Your task to perform on an android device: Look up the best gaming headphones on Best Buy Image 0: 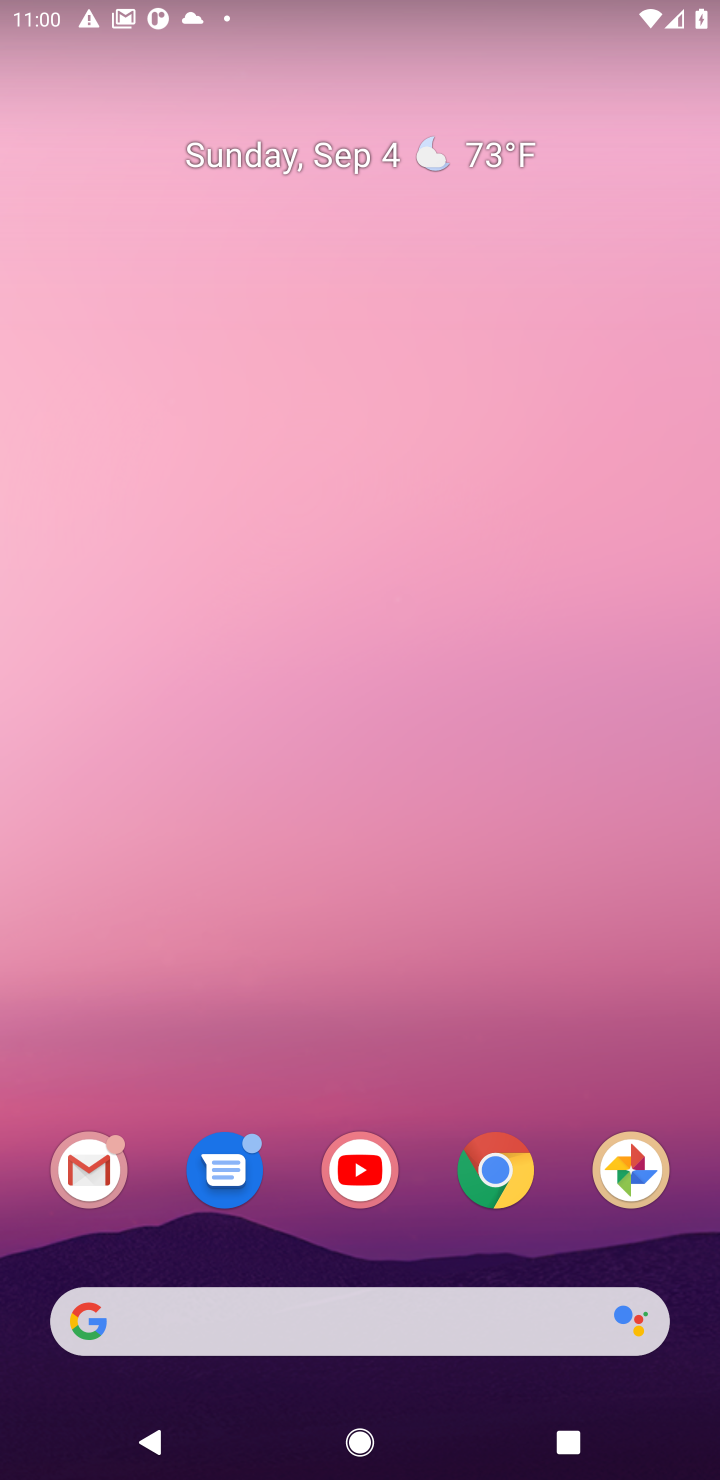
Step 0: drag from (402, 248) to (402, 117)
Your task to perform on an android device: Look up the best gaming headphones on Best Buy Image 1: 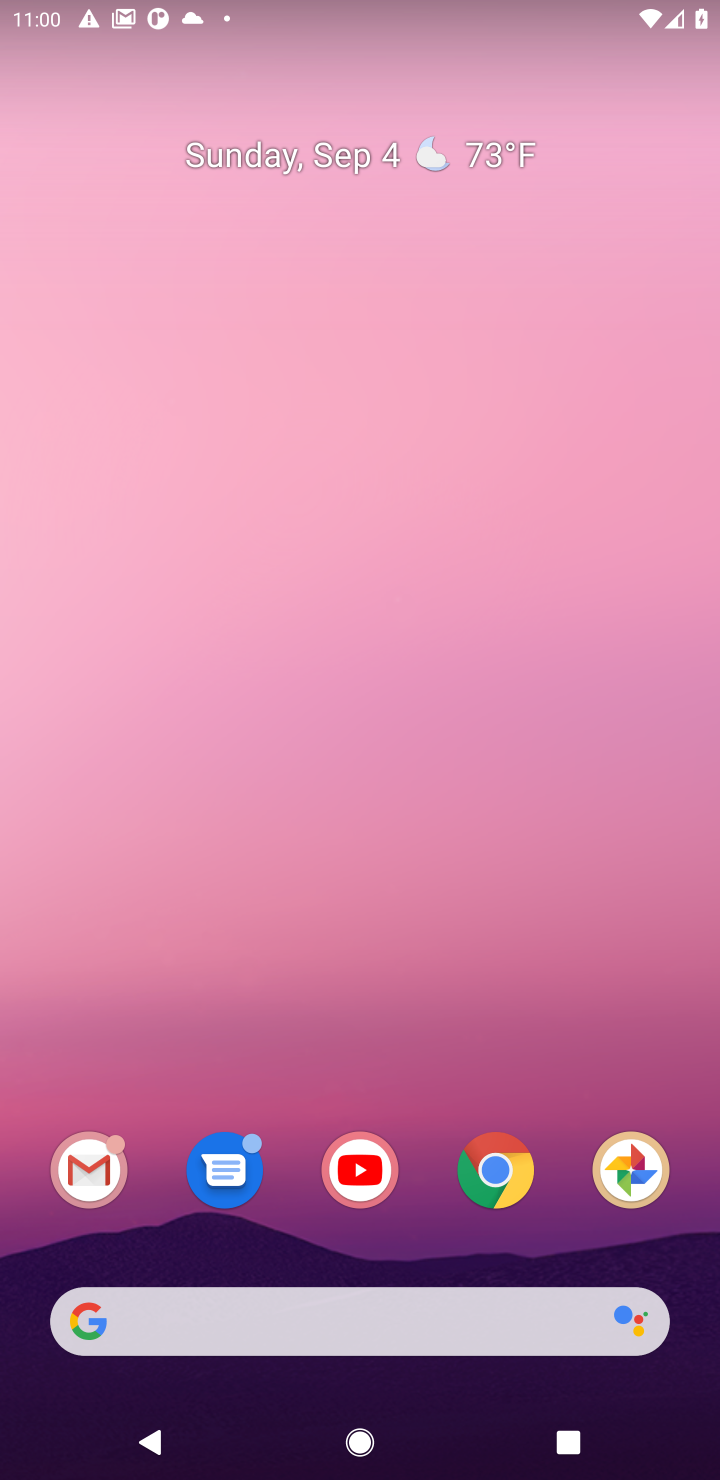
Step 1: drag from (339, 1224) to (424, 50)
Your task to perform on an android device: Look up the best gaming headphones on Best Buy Image 2: 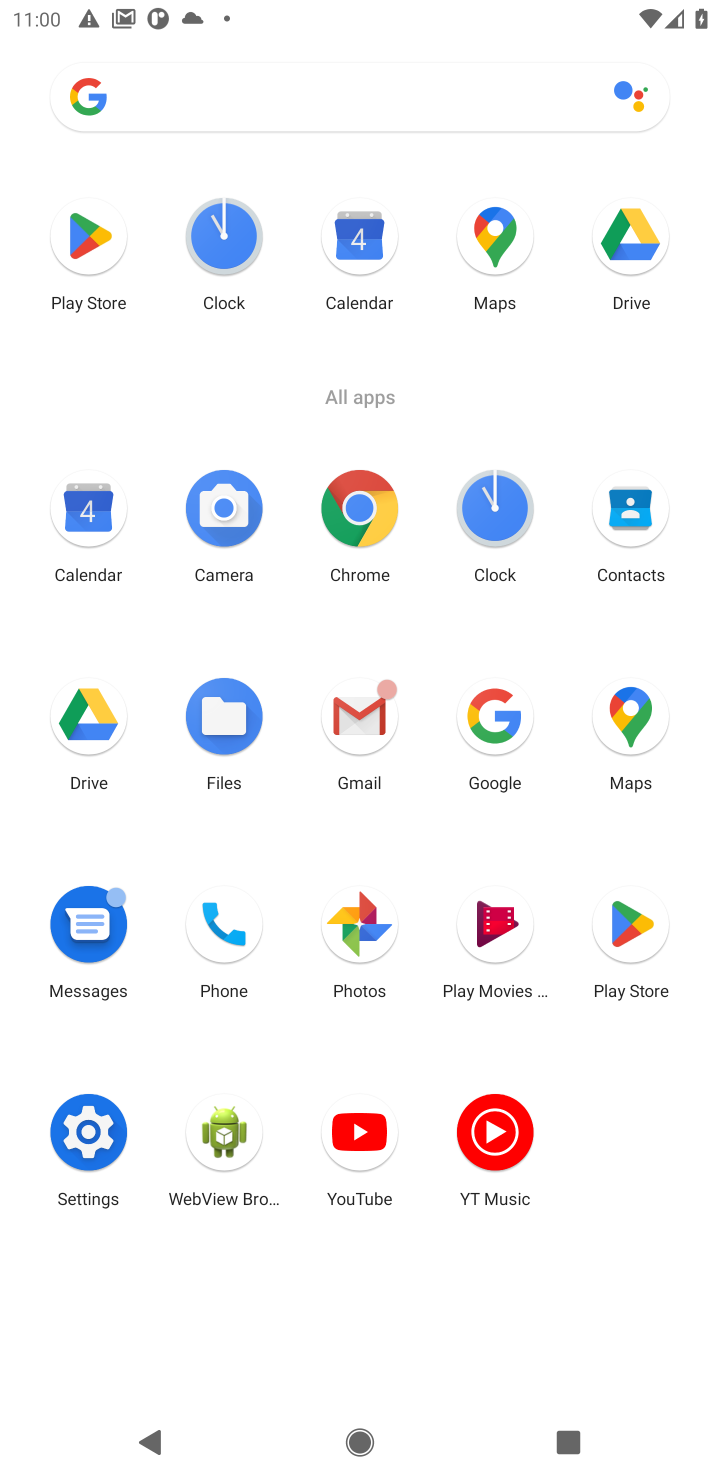
Step 2: click (344, 535)
Your task to perform on an android device: Look up the best gaming headphones on Best Buy Image 3: 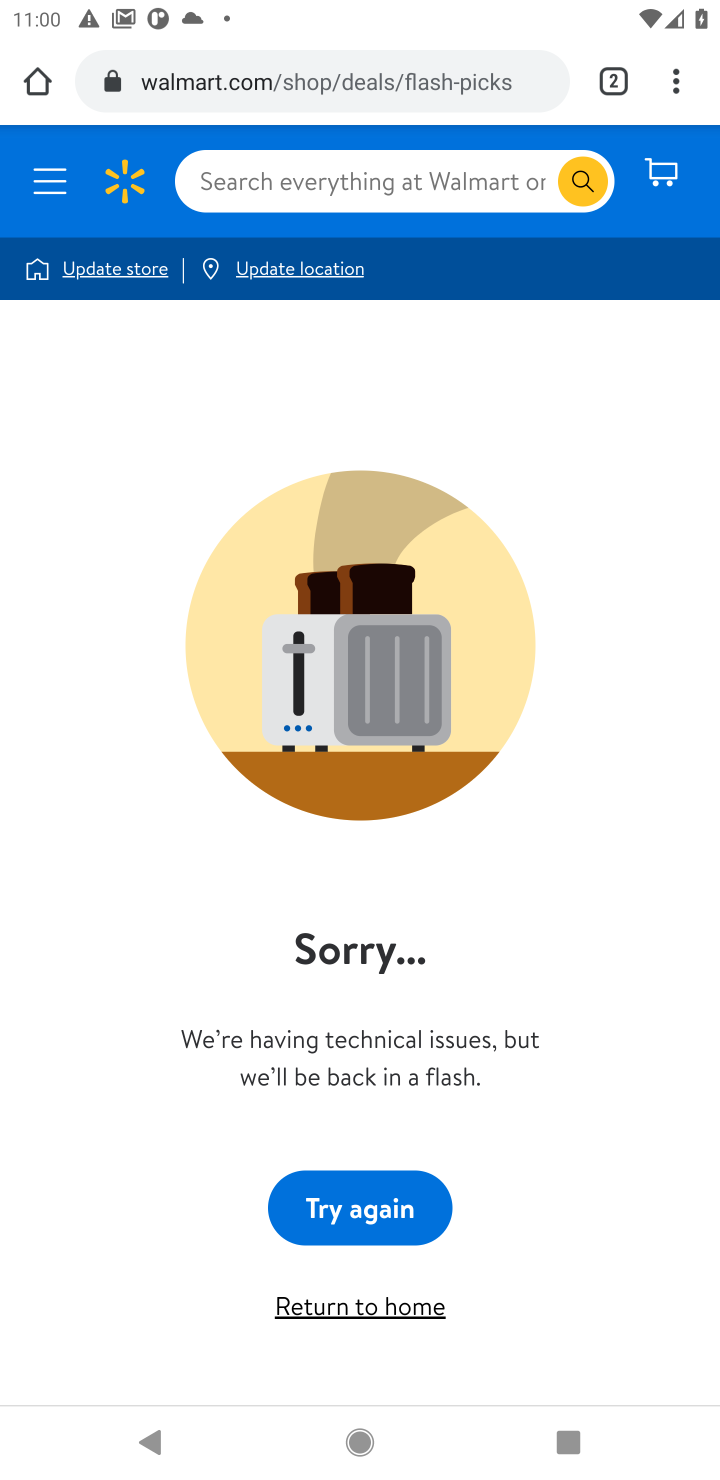
Step 3: click (611, 68)
Your task to perform on an android device: Look up the best gaming headphones on Best Buy Image 4: 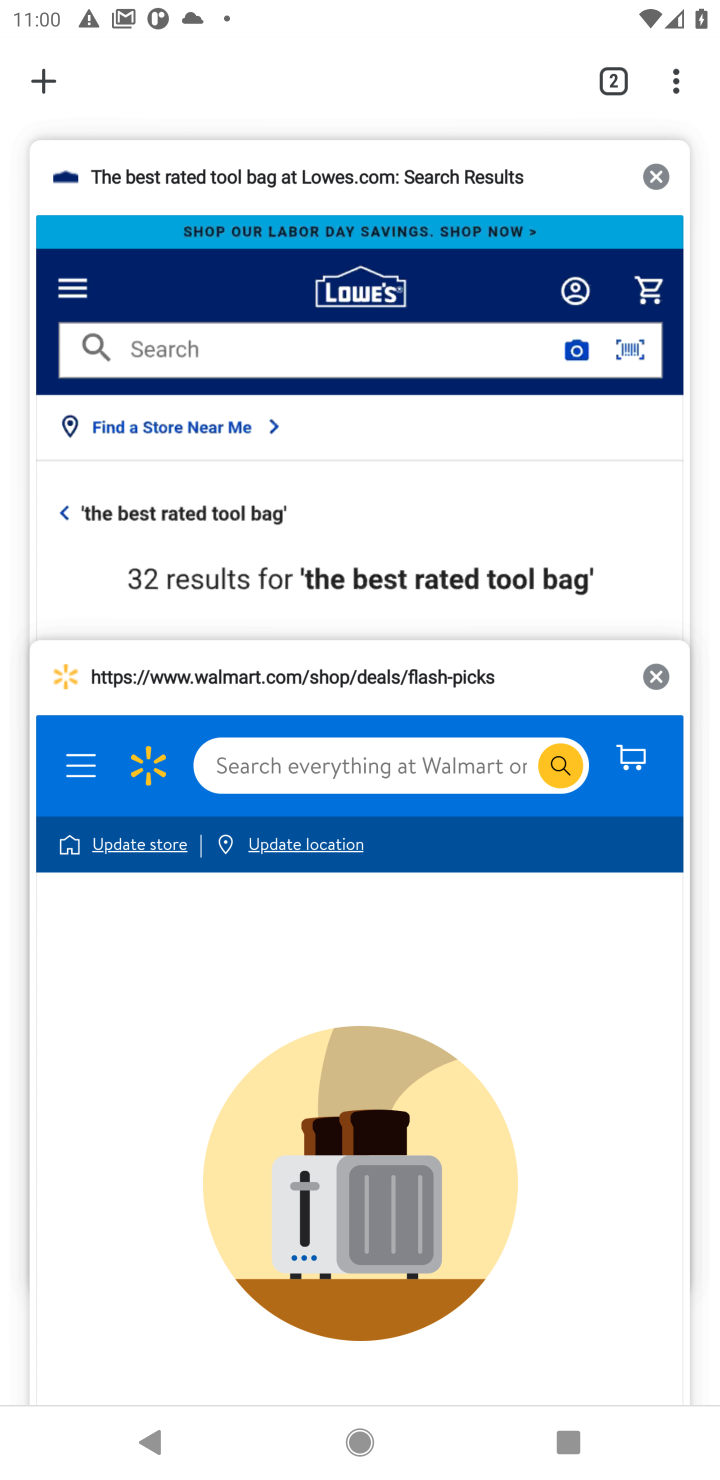
Step 4: click (38, 85)
Your task to perform on an android device: Look up the best gaming headphones on Best Buy Image 5: 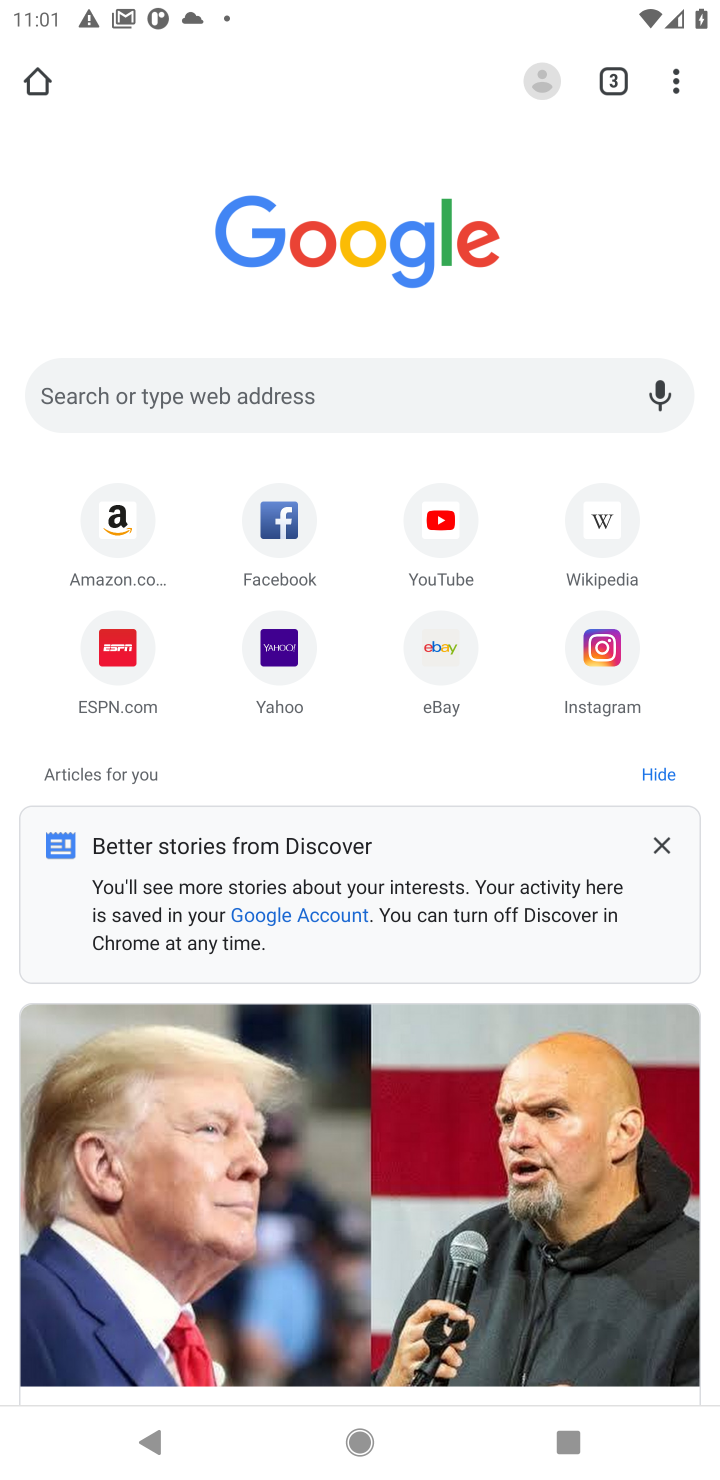
Step 5: click (258, 405)
Your task to perform on an android device: Look up the best gaming headphones on Best Buy Image 6: 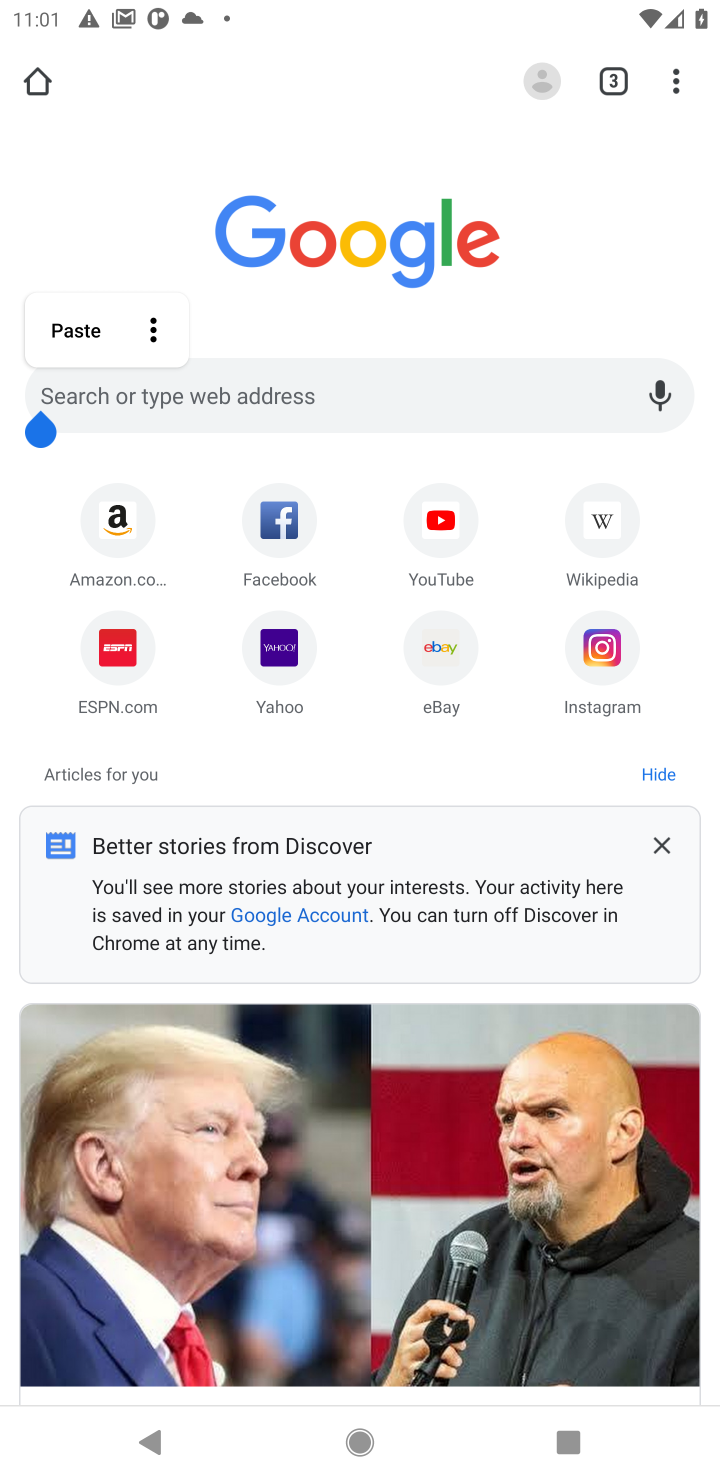
Step 6: type "Best Buy"
Your task to perform on an android device: Look up the best gaming headphones on Best Buy Image 7: 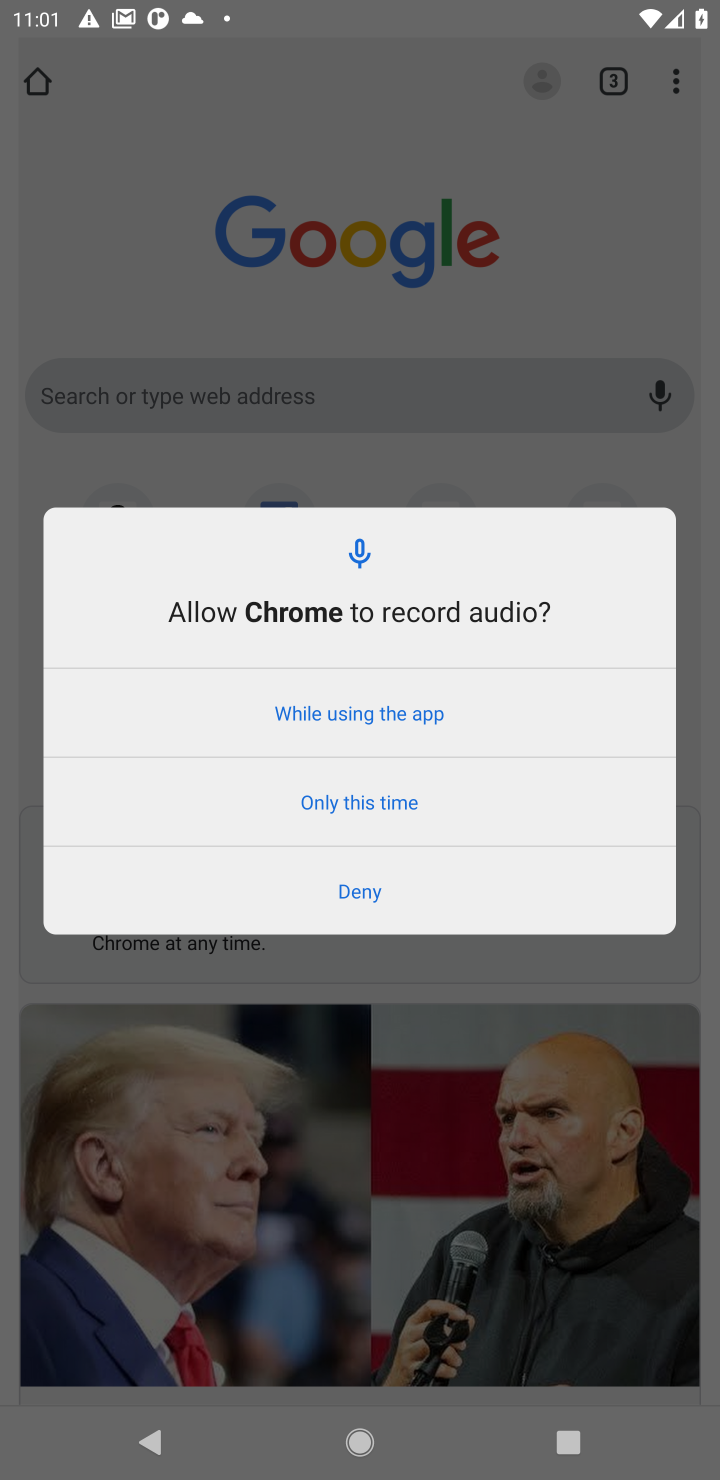
Step 7: click (157, 400)
Your task to perform on an android device: Look up the best gaming headphones on Best Buy Image 8: 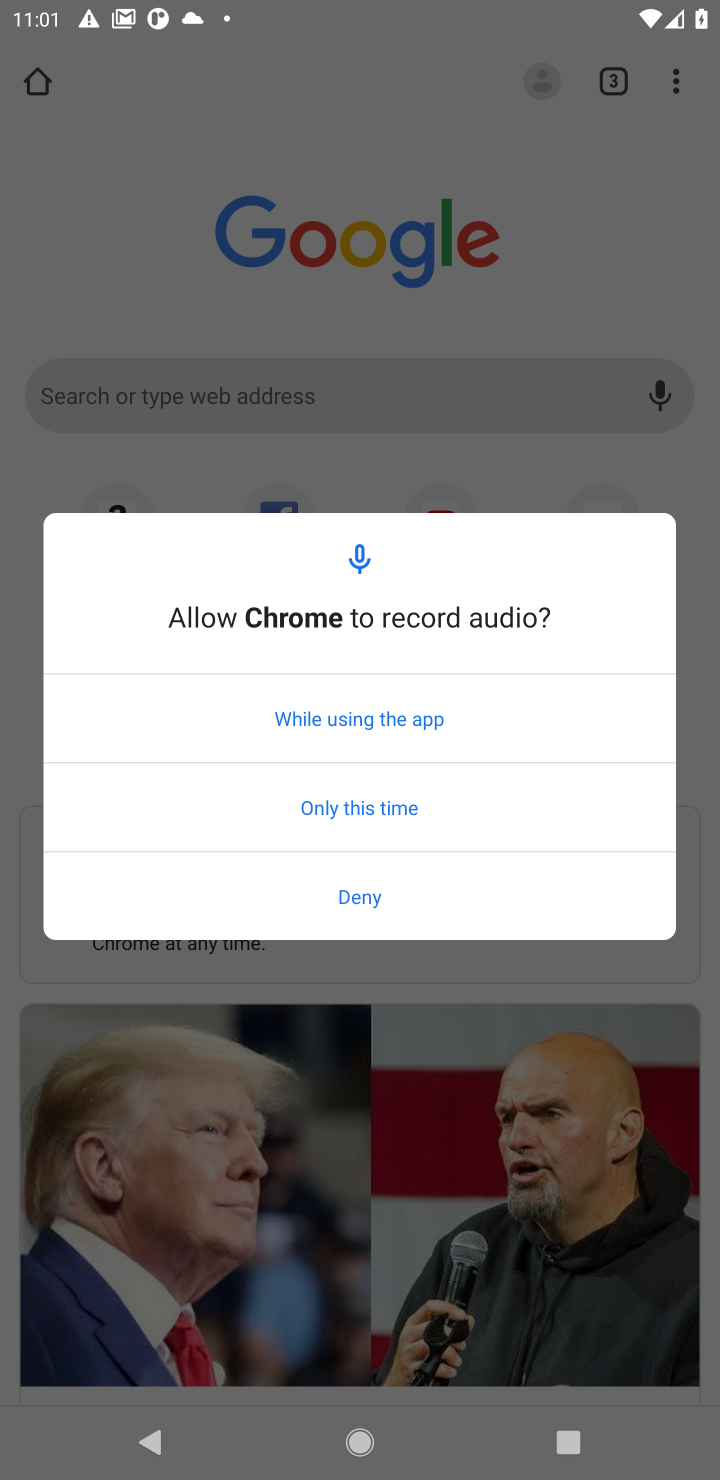
Step 8: click (546, 291)
Your task to perform on an android device: Look up the best gaming headphones on Best Buy Image 9: 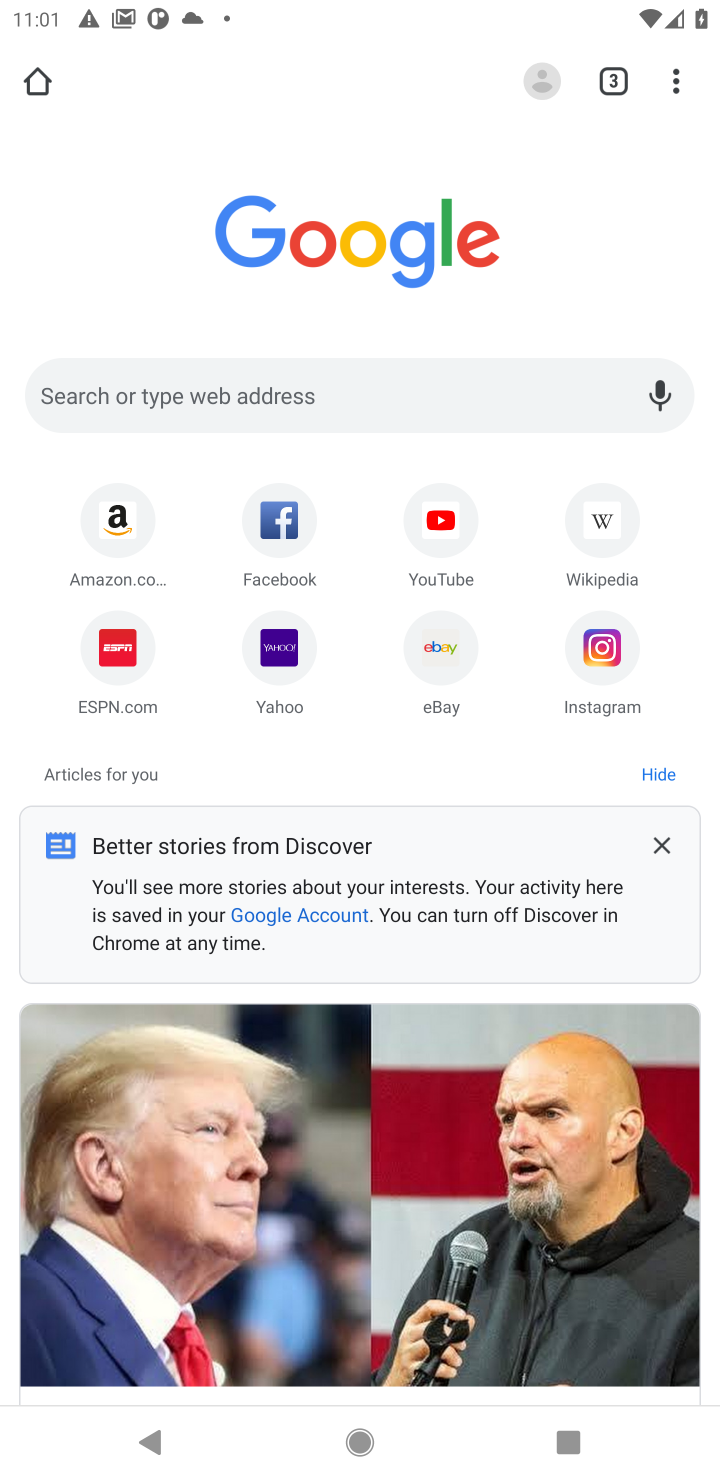
Step 9: click (376, 392)
Your task to perform on an android device: Look up the best gaming headphones on Best Buy Image 10: 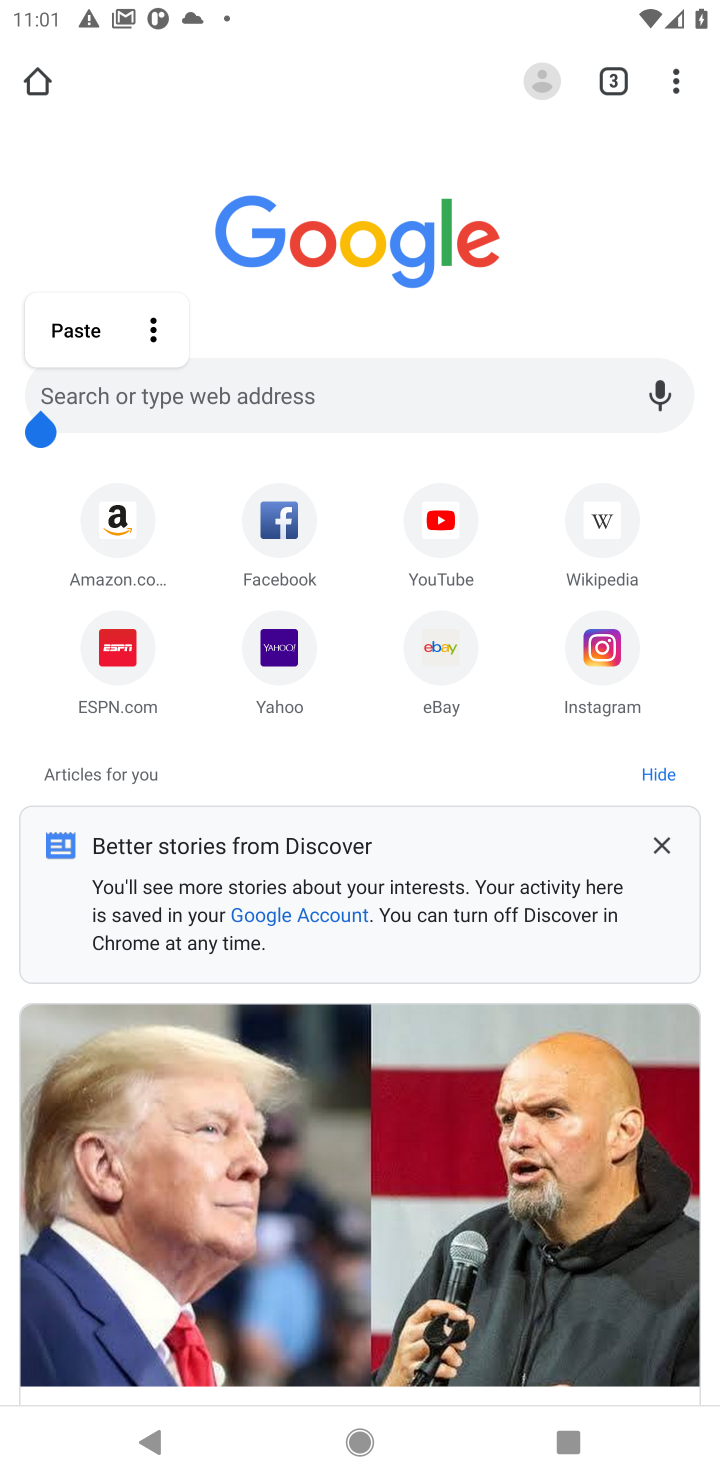
Step 10: click (294, 394)
Your task to perform on an android device: Look up the best gaming headphones on Best Buy Image 11: 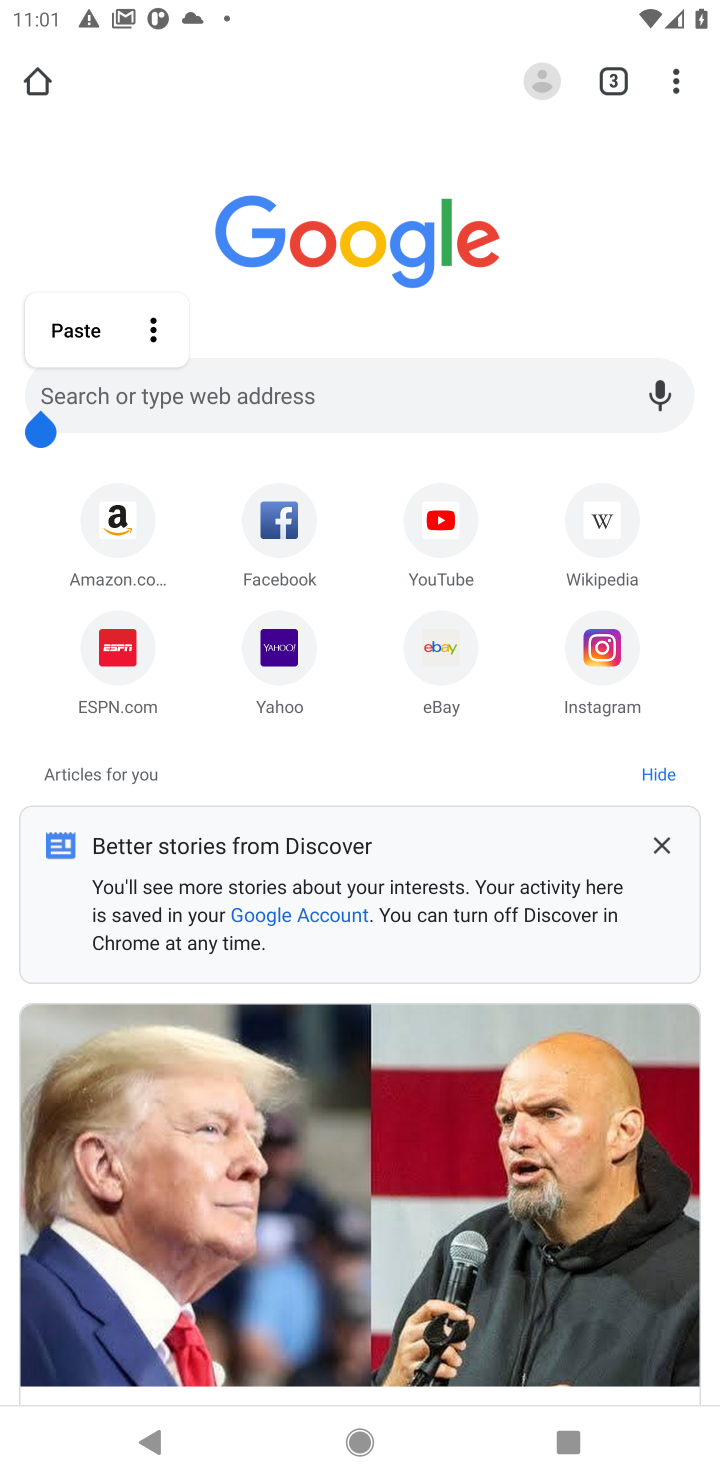
Step 11: click (301, 389)
Your task to perform on an android device: Look up the best gaming headphones on Best Buy Image 12: 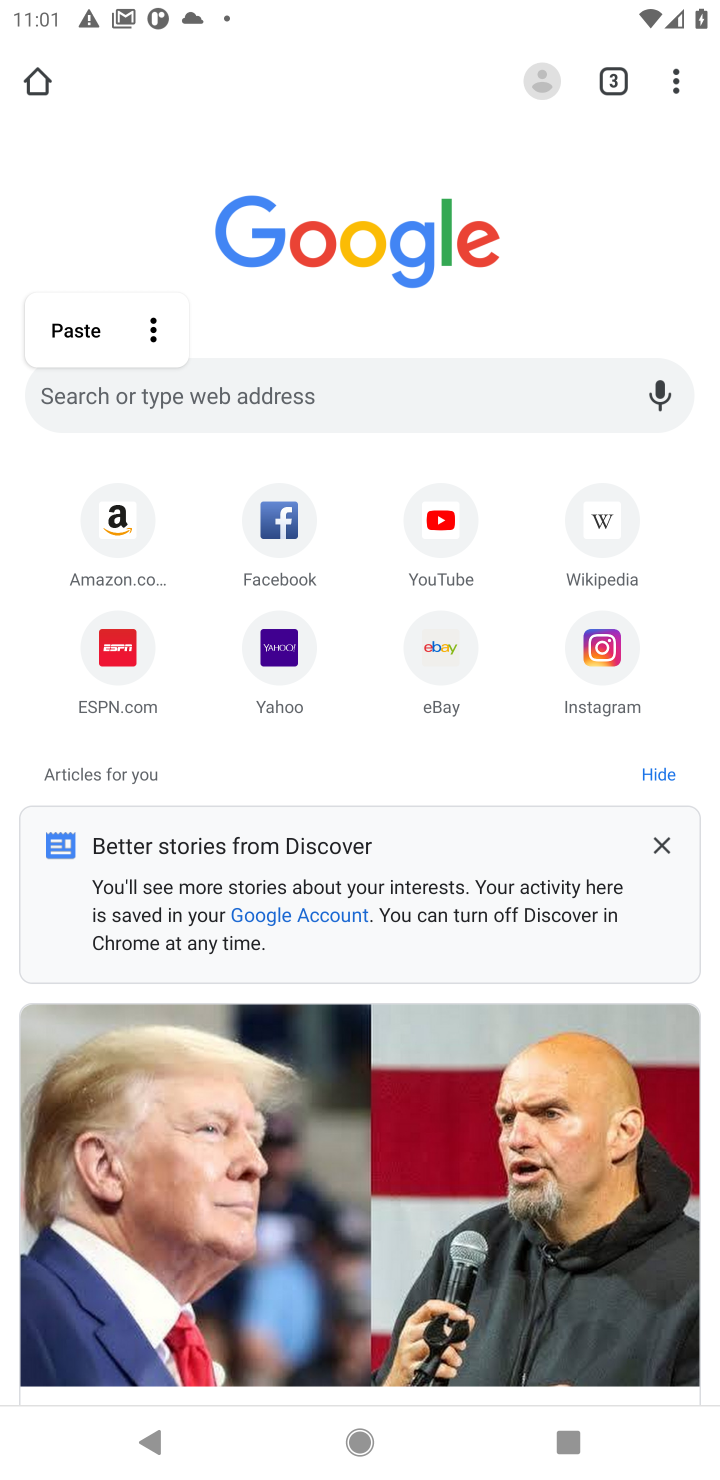
Step 12: click (371, 393)
Your task to perform on an android device: Look up the best gaming headphones on Best Buy Image 13: 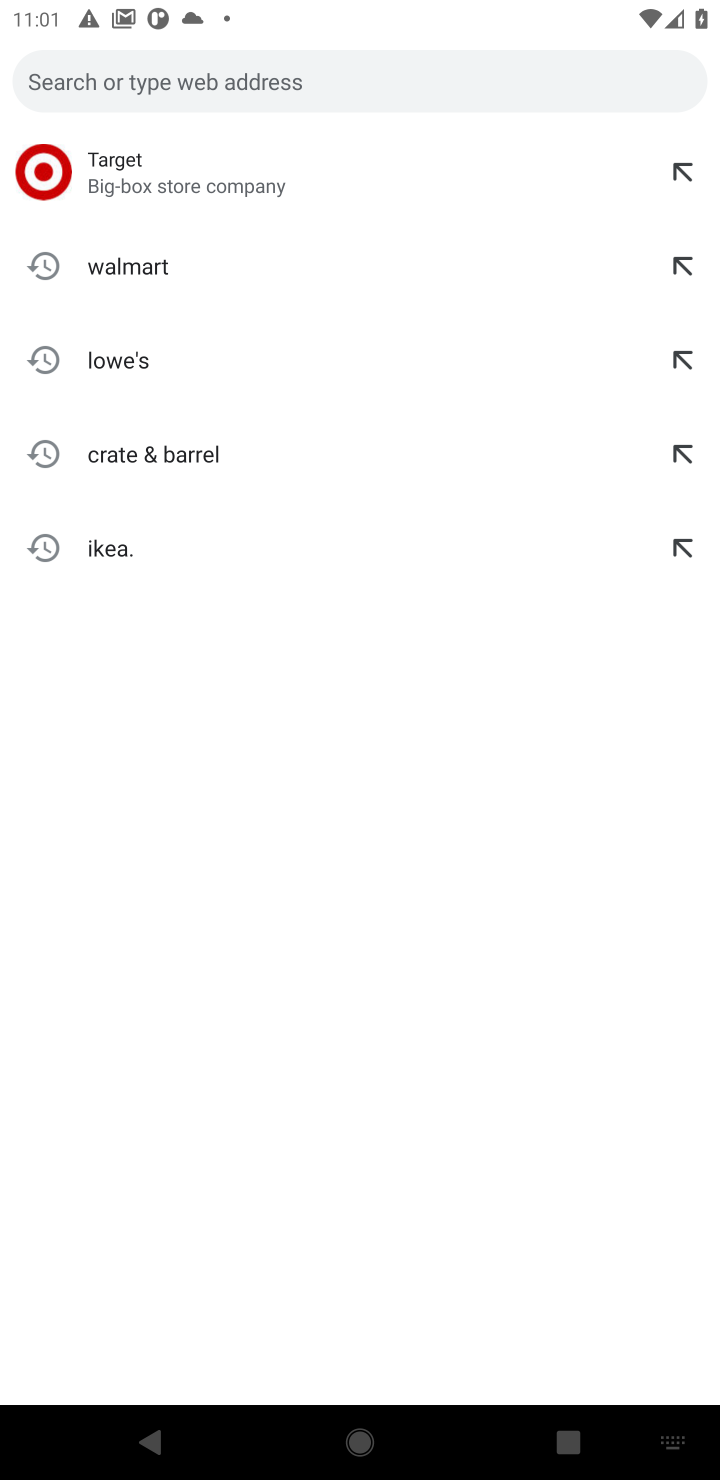
Step 13: type "Best Buy"
Your task to perform on an android device: Look up the best gaming headphones on Best Buy Image 14: 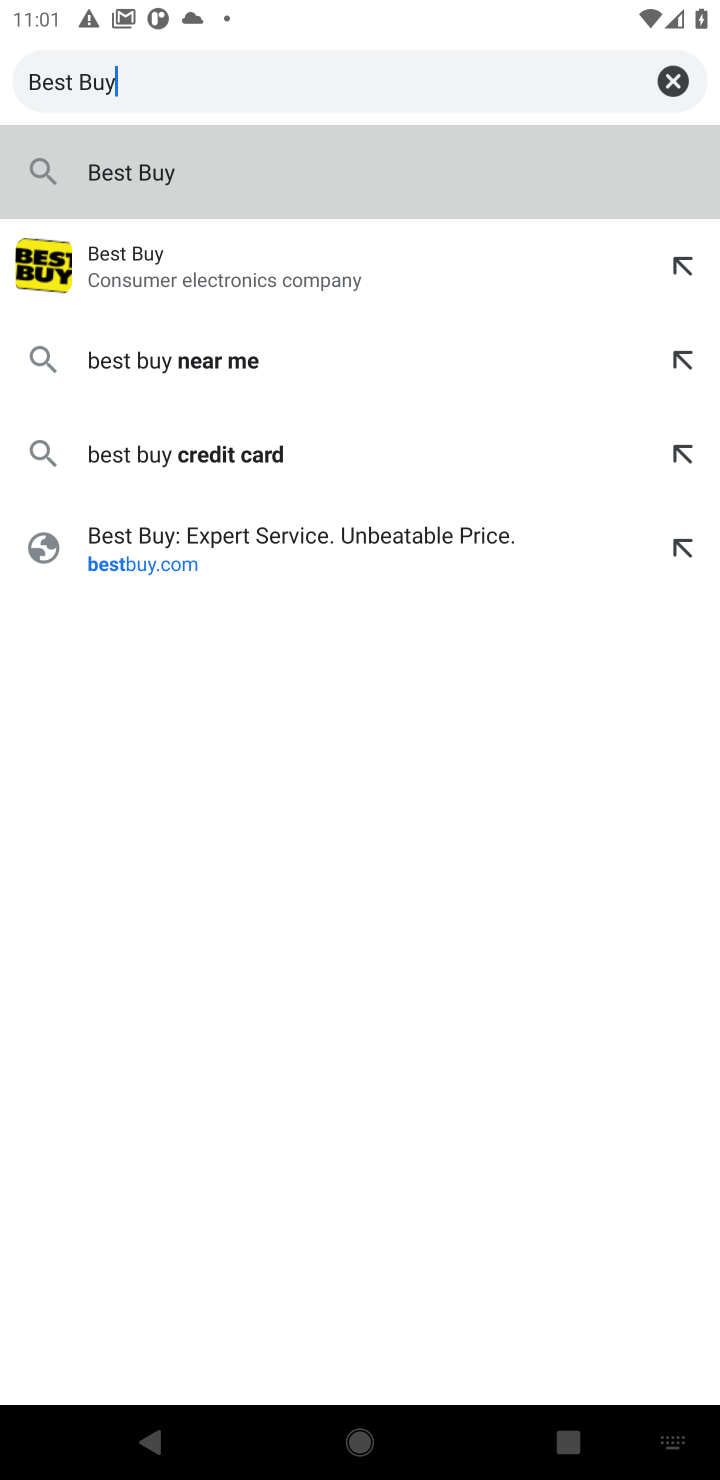
Step 14: click (231, 171)
Your task to perform on an android device: Look up the best gaming headphones on Best Buy Image 15: 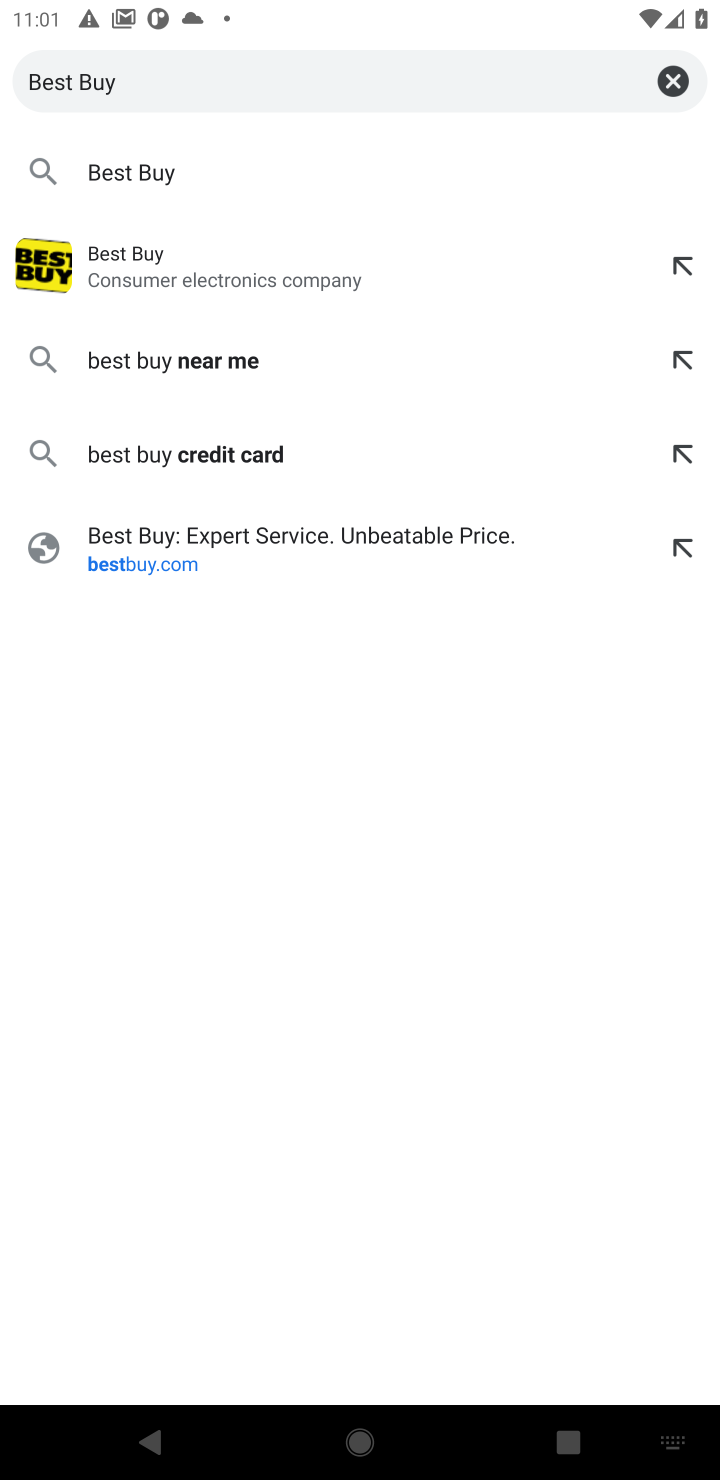
Step 15: click (195, 193)
Your task to perform on an android device: Look up the best gaming headphones on Best Buy Image 16: 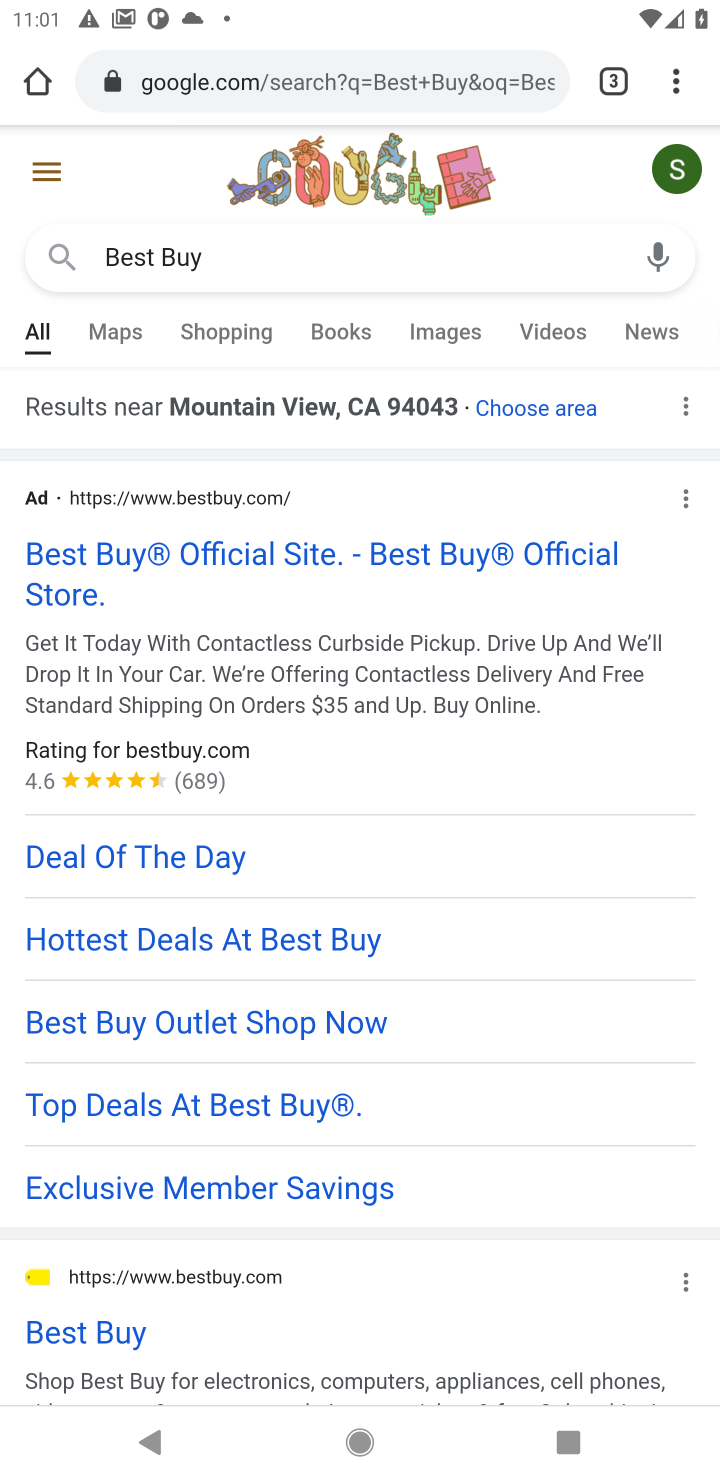
Step 16: click (289, 547)
Your task to perform on an android device: Look up the best gaming headphones on Best Buy Image 17: 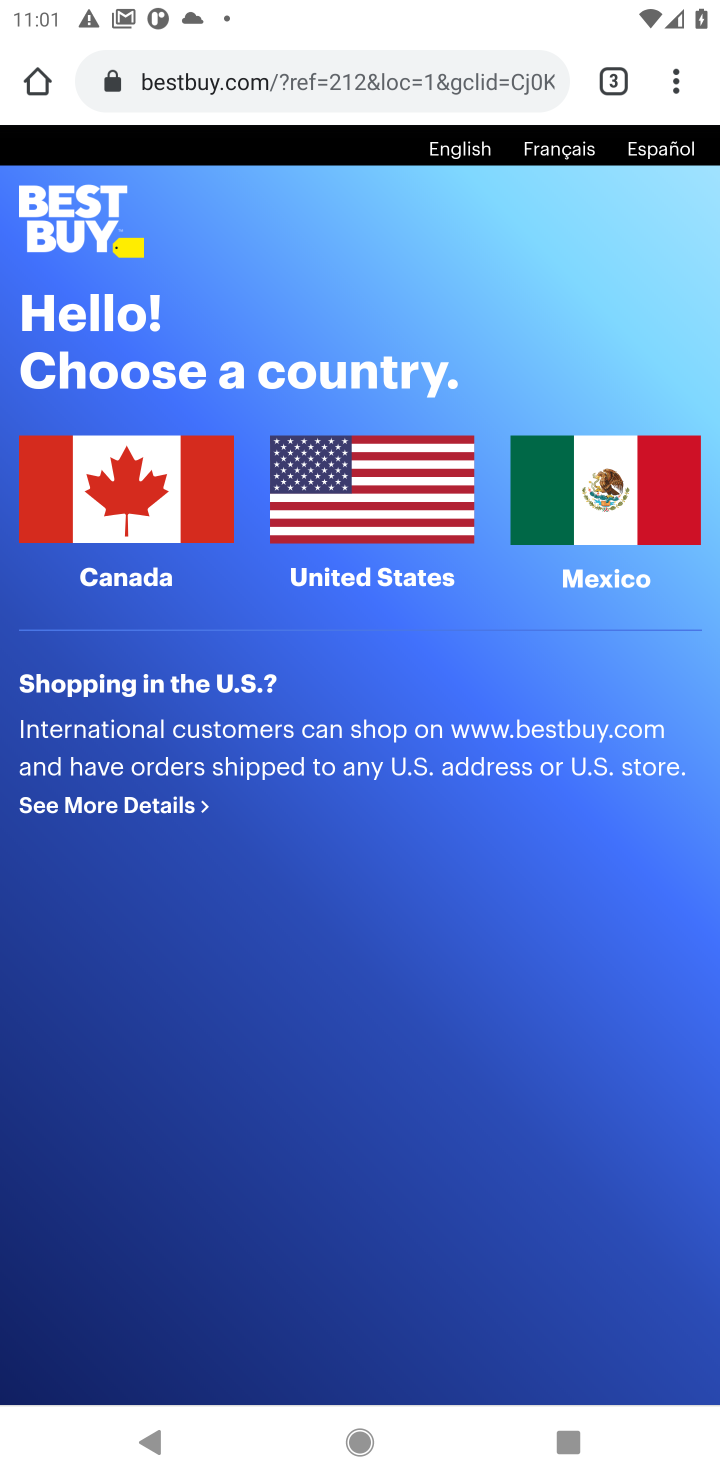
Step 17: click (403, 476)
Your task to perform on an android device: Look up the best gaming headphones on Best Buy Image 18: 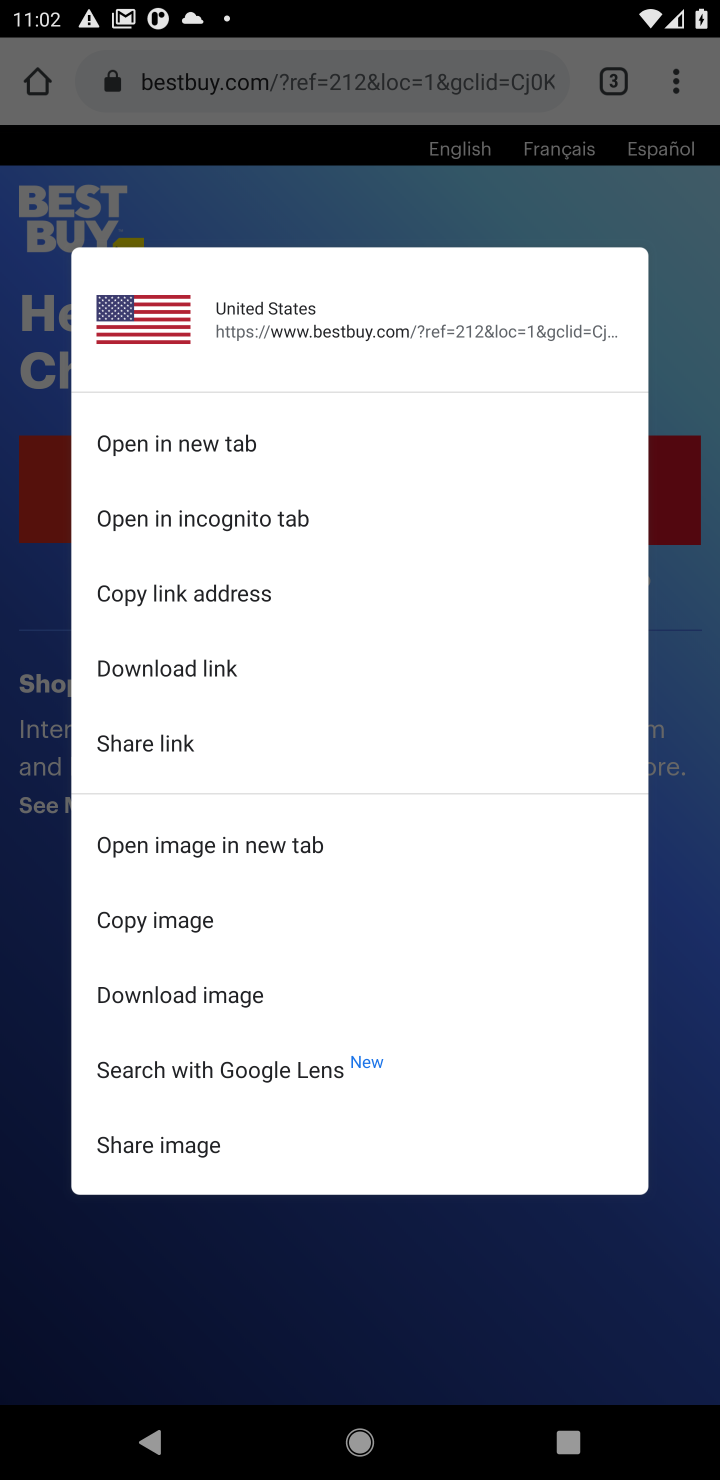
Step 18: click (519, 172)
Your task to perform on an android device: Look up the best gaming headphones on Best Buy Image 19: 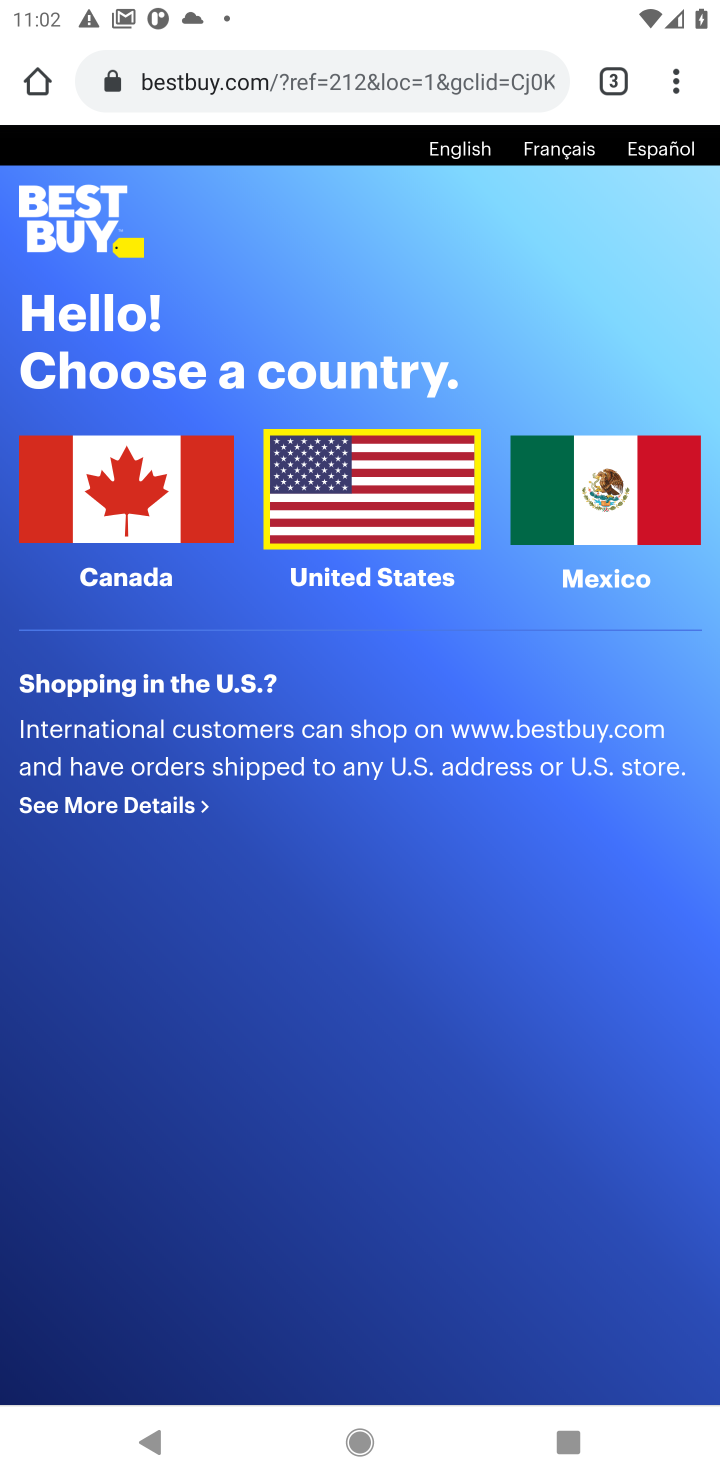
Step 19: click (357, 555)
Your task to perform on an android device: Look up the best gaming headphones on Best Buy Image 20: 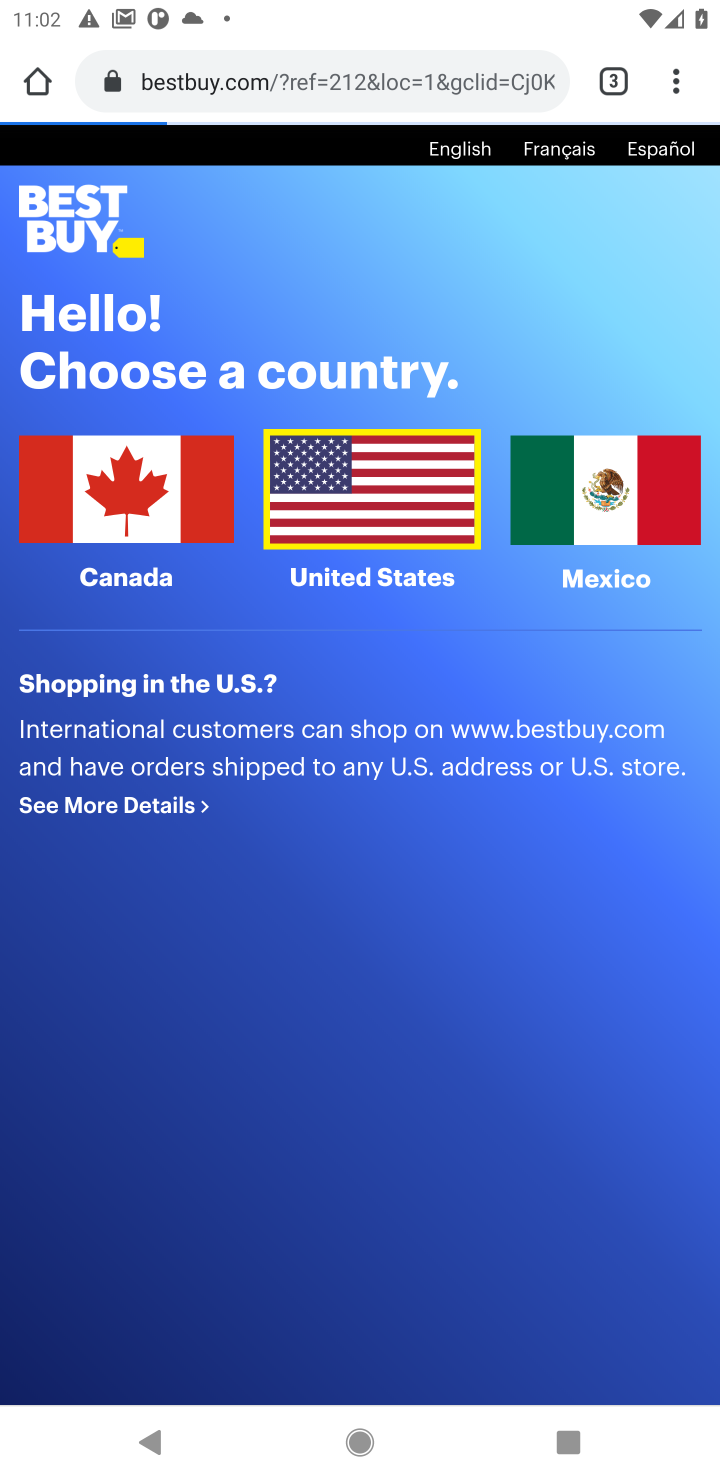
Step 20: click (323, 496)
Your task to perform on an android device: Look up the best gaming headphones on Best Buy Image 21: 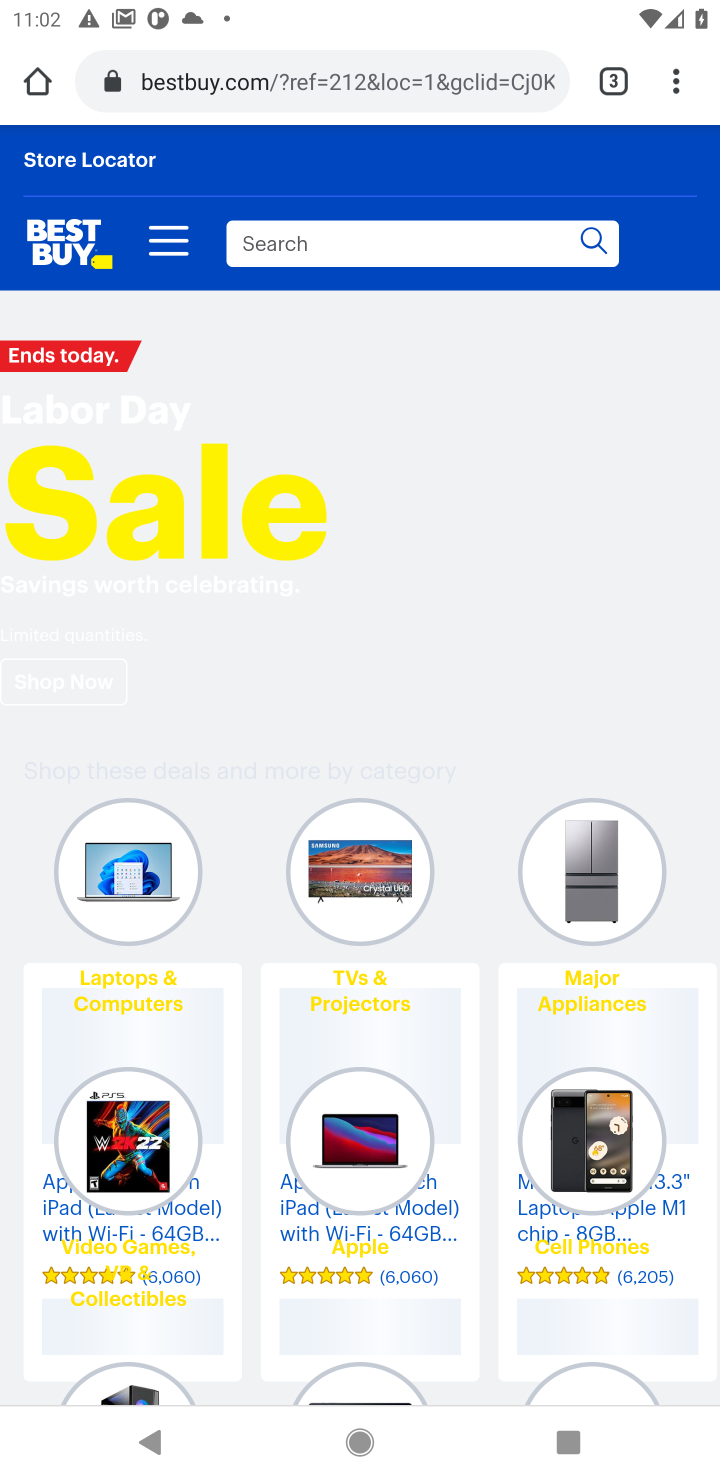
Step 21: click (417, 243)
Your task to perform on an android device: Look up the best gaming headphones on Best Buy Image 22: 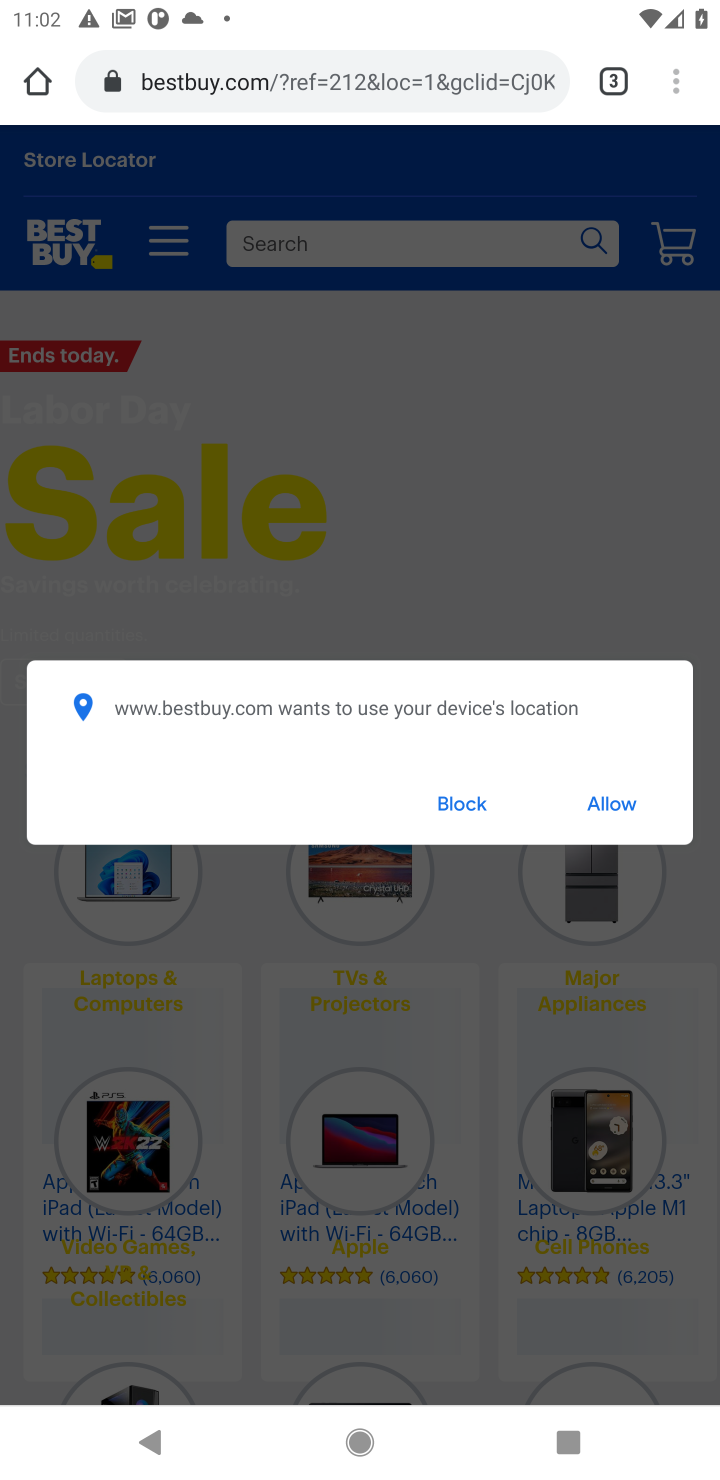
Step 22: click (635, 821)
Your task to perform on an android device: Look up the best gaming headphones on Best Buy Image 23: 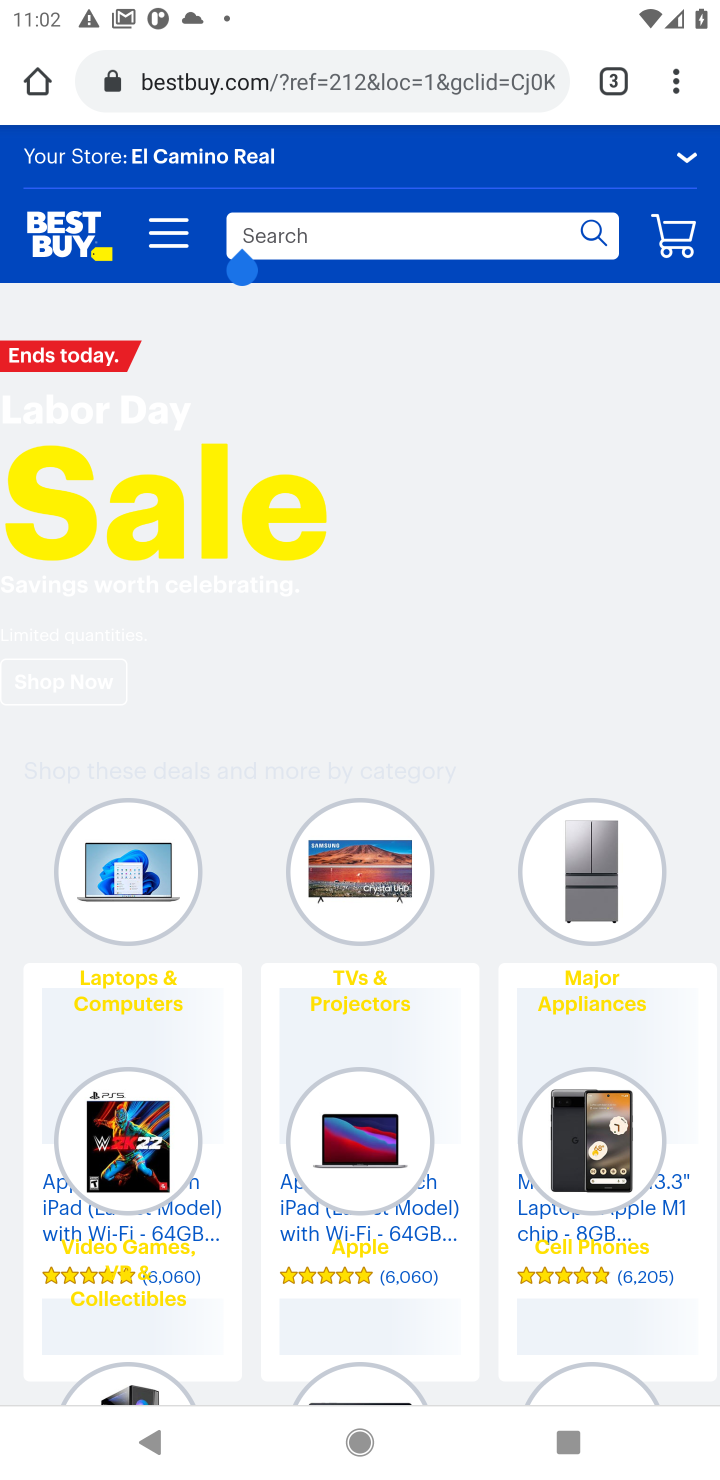
Step 23: type "best gaming headphones"
Your task to perform on an android device: Look up the best gaming headphones on Best Buy Image 24: 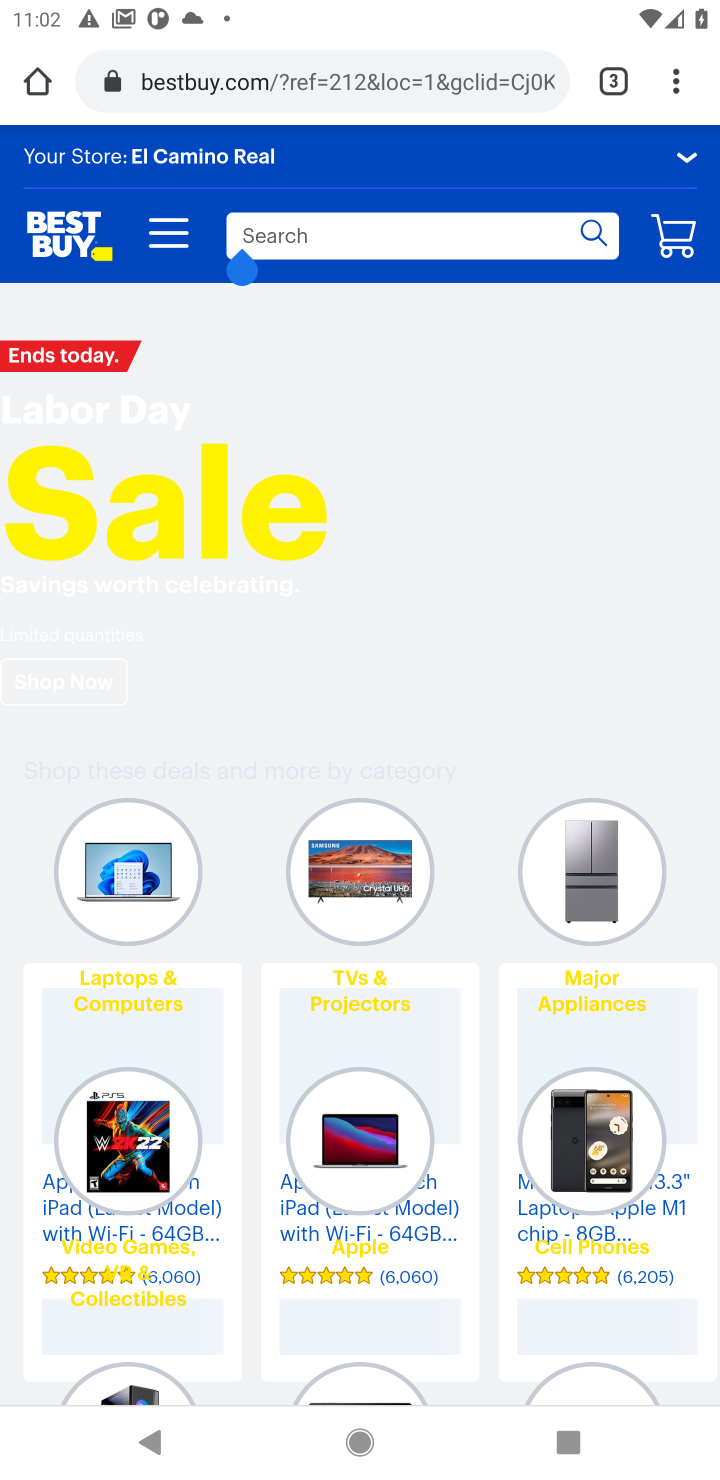
Step 24: click (389, 252)
Your task to perform on an android device: Look up the best gaming headphones on Best Buy Image 25: 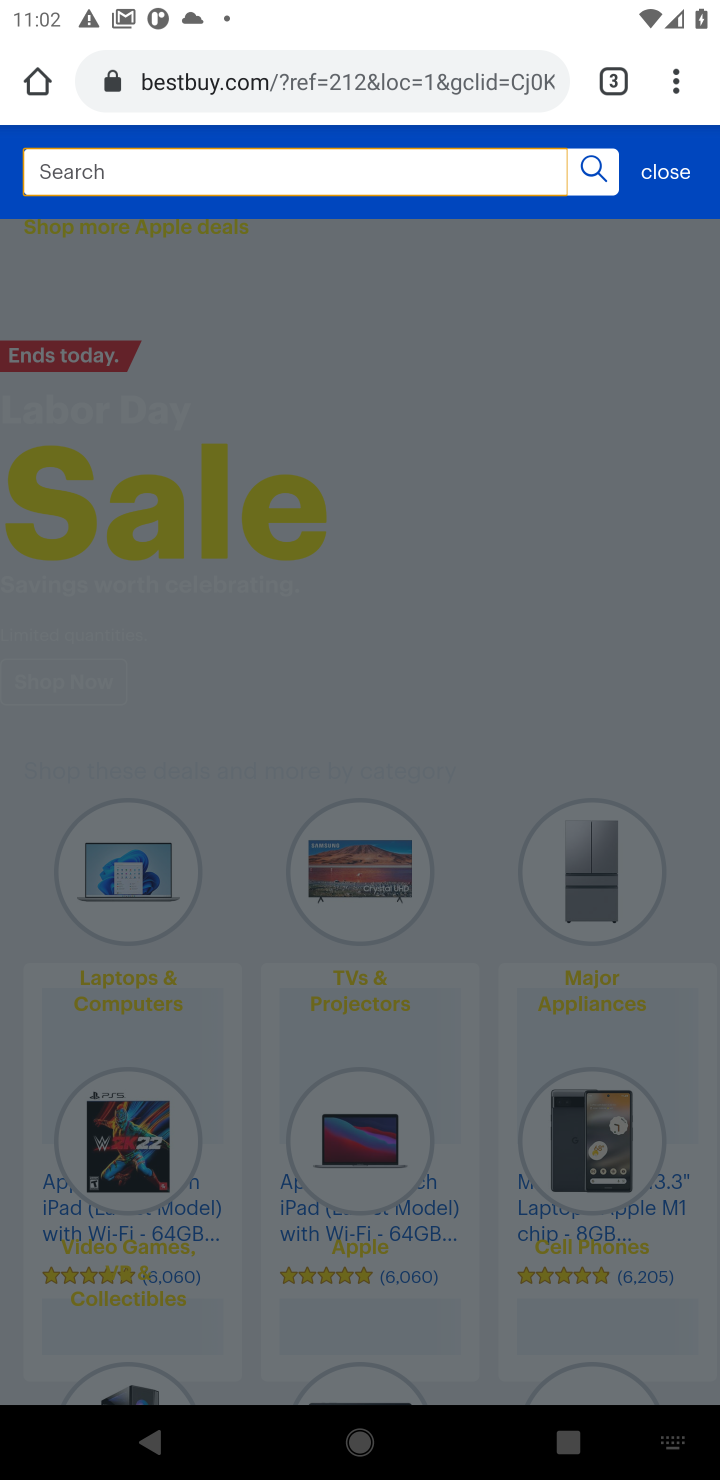
Step 25: type " best gaming headphones"
Your task to perform on an android device: Look up the best gaming headphones on Best Buy Image 26: 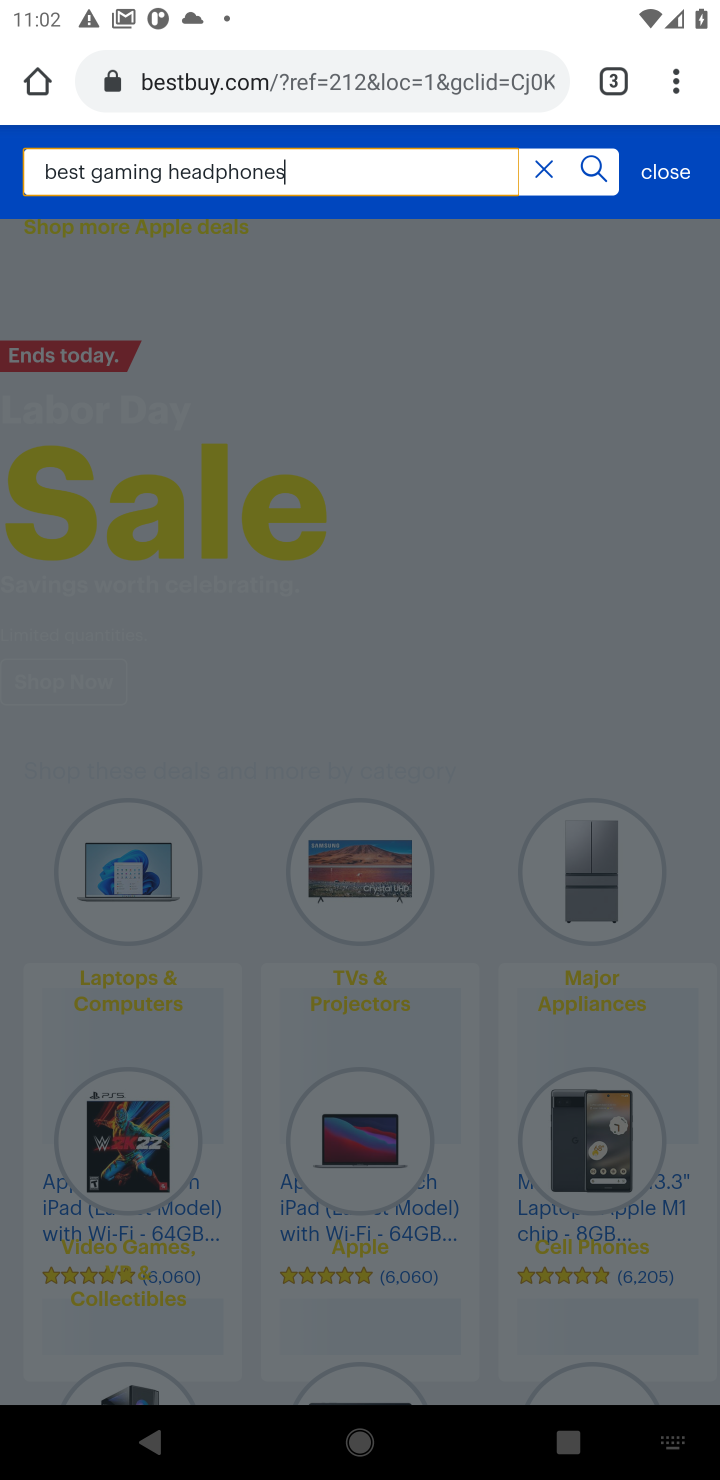
Step 26: click (604, 173)
Your task to perform on an android device: Look up the best gaming headphones on Best Buy Image 27: 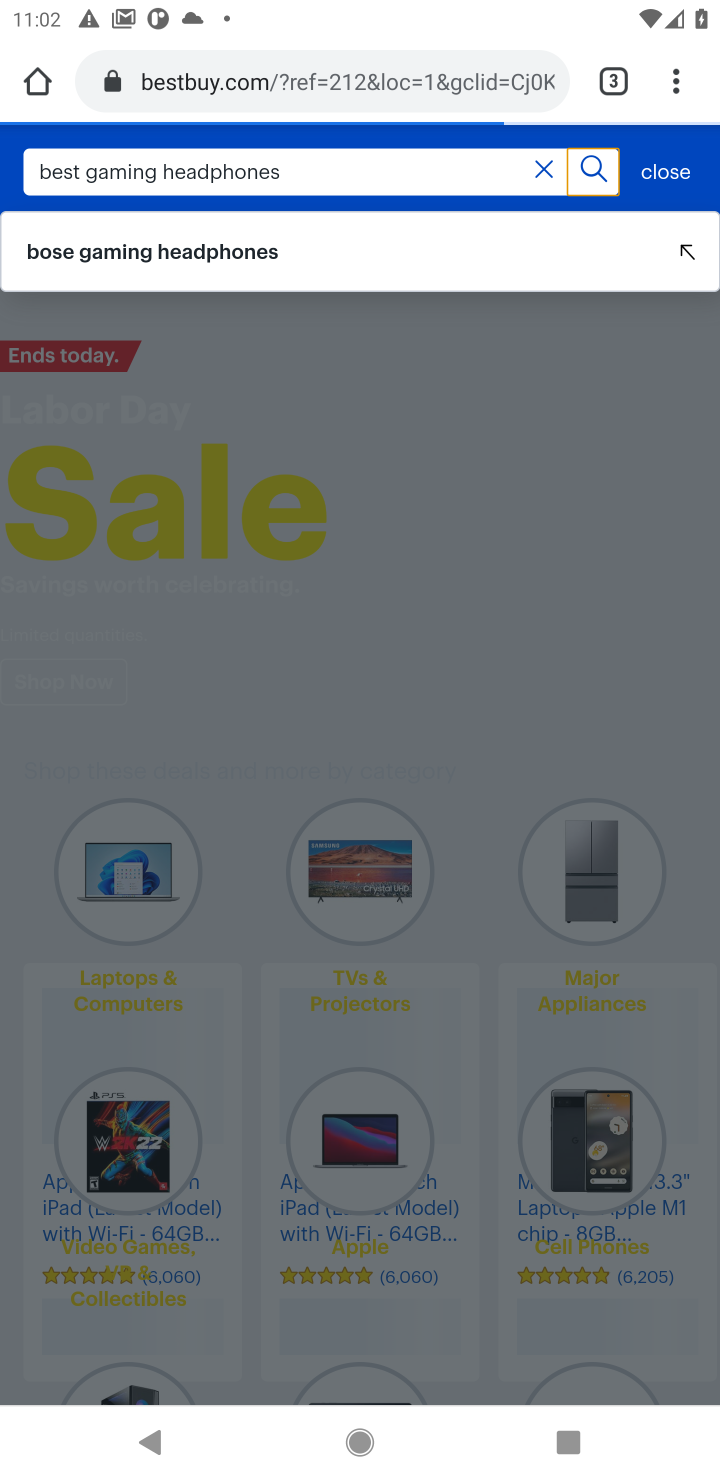
Step 27: click (357, 255)
Your task to perform on an android device: Look up the best gaming headphones on Best Buy Image 28: 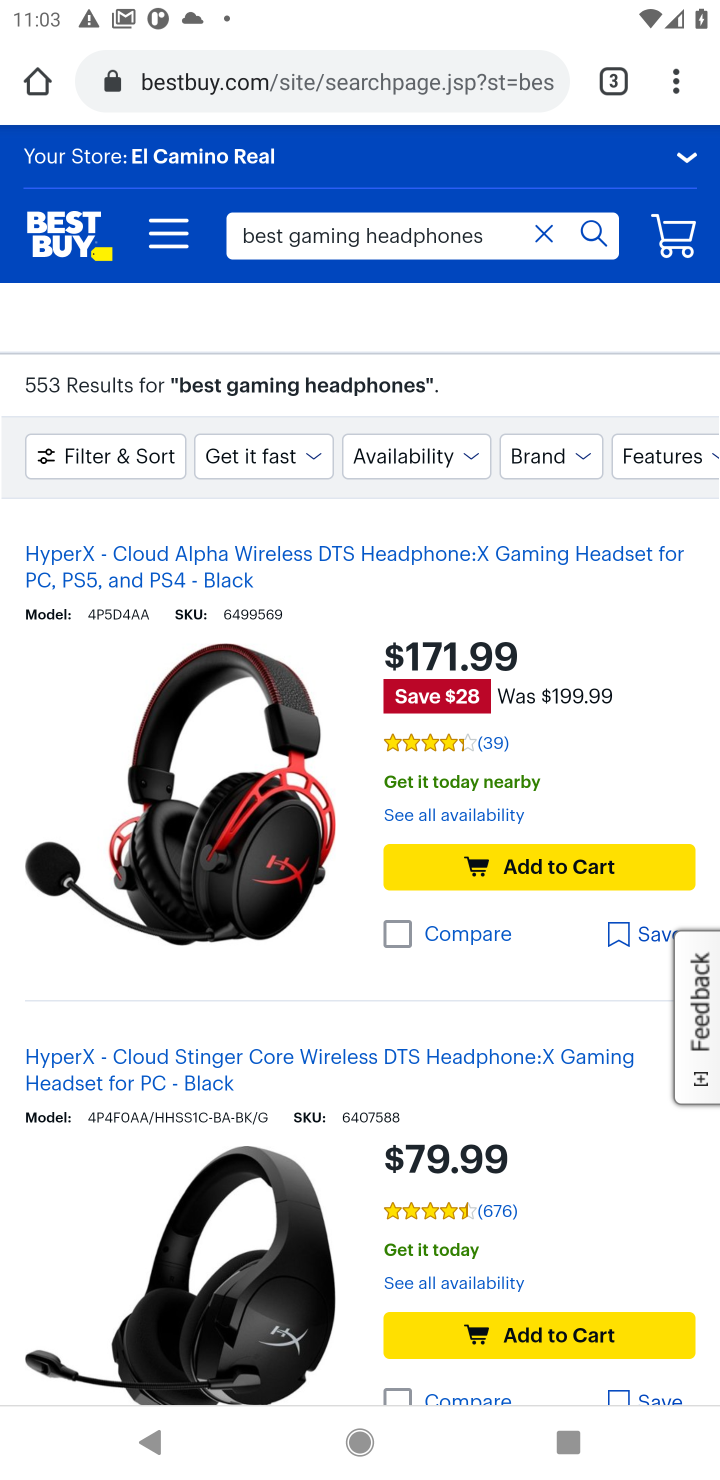
Step 28: task complete